Your task to perform on an android device: move an email to a new category in the gmail app Image 0: 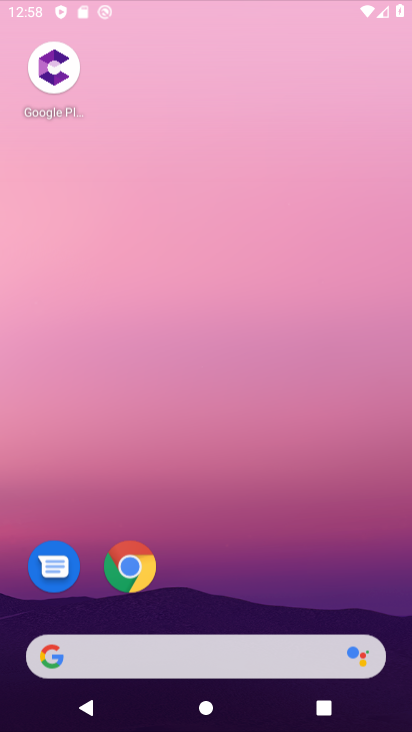
Step 0: click (183, 125)
Your task to perform on an android device: move an email to a new category in the gmail app Image 1: 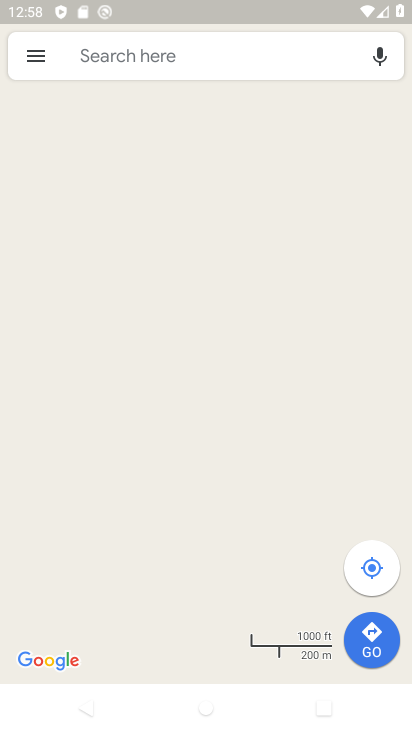
Step 1: press home button
Your task to perform on an android device: move an email to a new category in the gmail app Image 2: 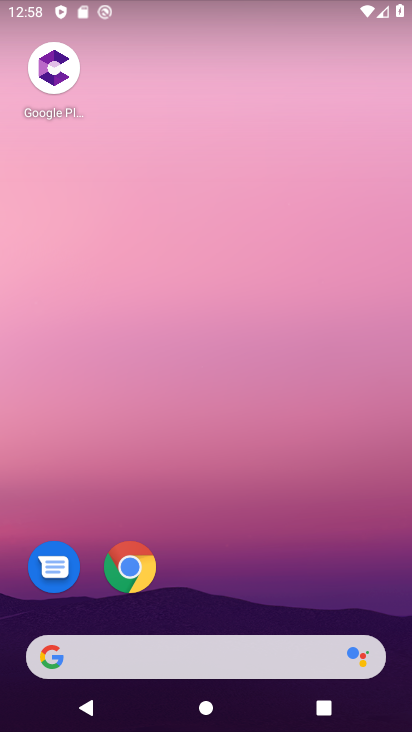
Step 2: drag from (217, 566) to (228, 42)
Your task to perform on an android device: move an email to a new category in the gmail app Image 3: 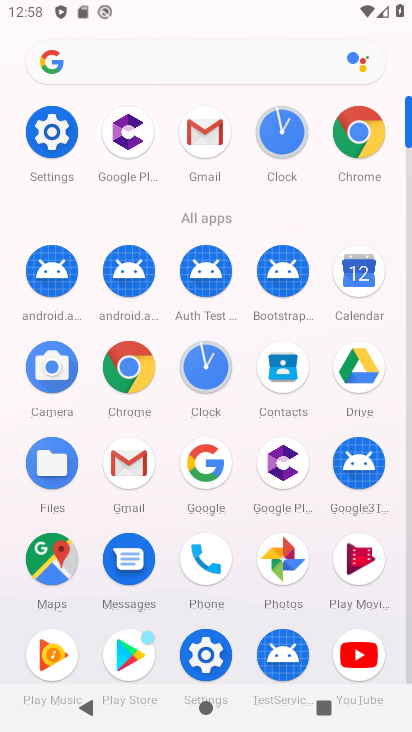
Step 3: click (203, 129)
Your task to perform on an android device: move an email to a new category in the gmail app Image 4: 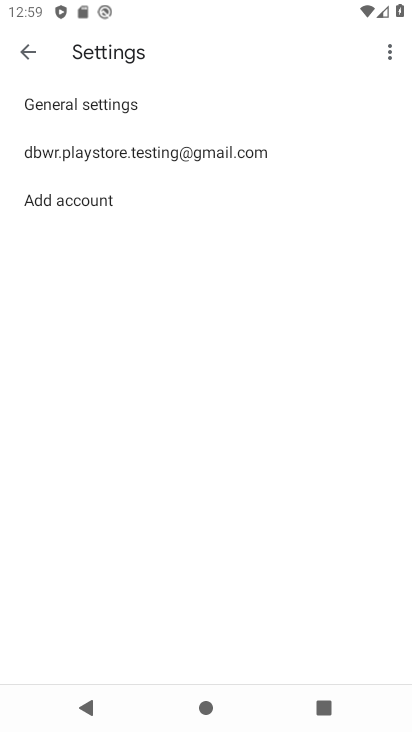
Step 4: click (27, 51)
Your task to perform on an android device: move an email to a new category in the gmail app Image 5: 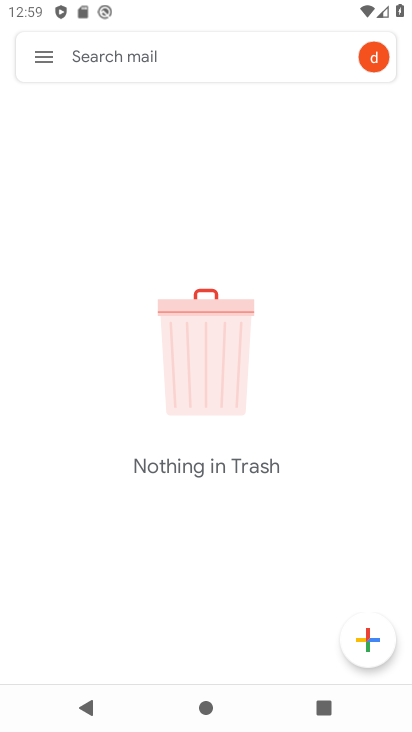
Step 5: click (38, 56)
Your task to perform on an android device: move an email to a new category in the gmail app Image 6: 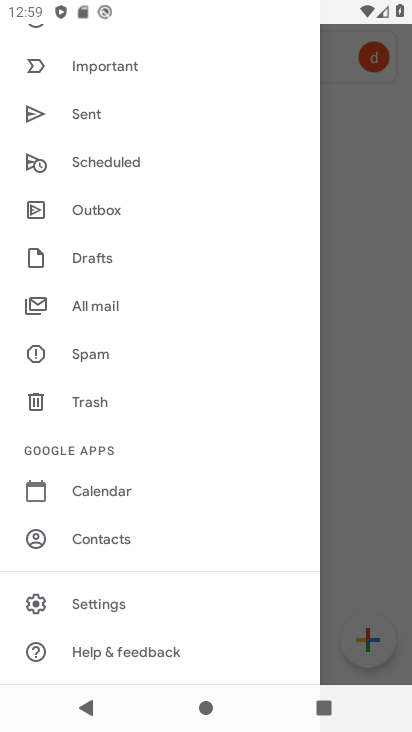
Step 6: drag from (129, 150) to (134, 634)
Your task to perform on an android device: move an email to a new category in the gmail app Image 7: 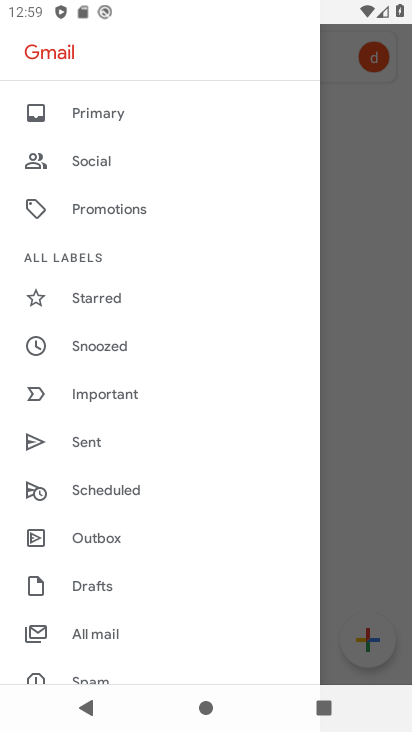
Step 7: drag from (162, 584) to (190, 73)
Your task to perform on an android device: move an email to a new category in the gmail app Image 8: 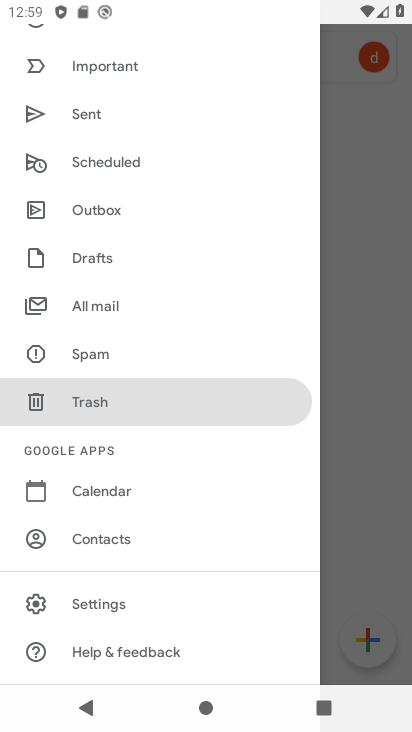
Step 8: click (353, 239)
Your task to perform on an android device: move an email to a new category in the gmail app Image 9: 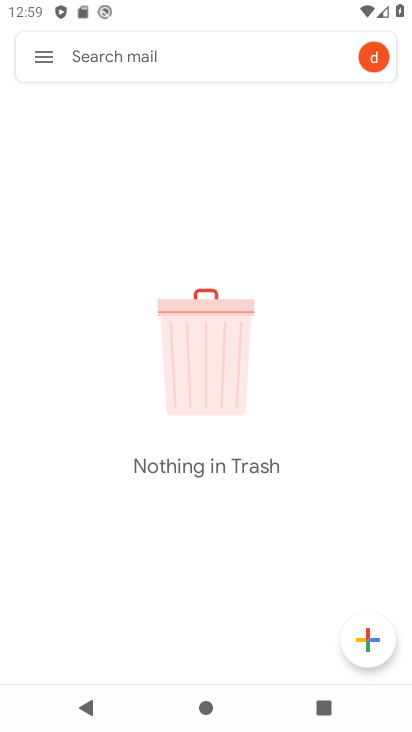
Step 9: click (50, 45)
Your task to perform on an android device: move an email to a new category in the gmail app Image 10: 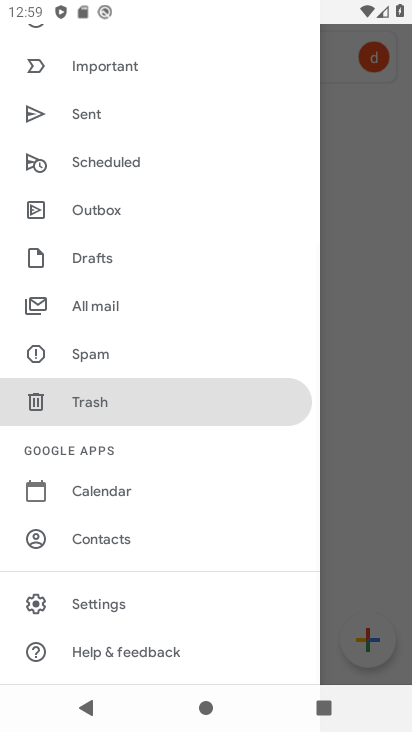
Step 10: click (92, 303)
Your task to perform on an android device: move an email to a new category in the gmail app Image 11: 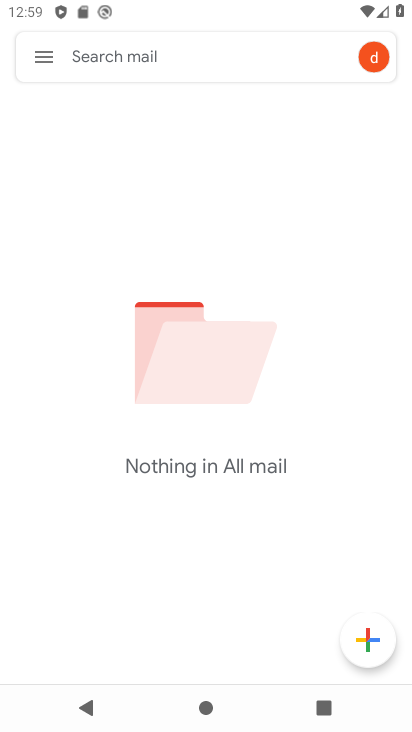
Step 11: task complete